Your task to perform on an android device: set an alarm Image 0: 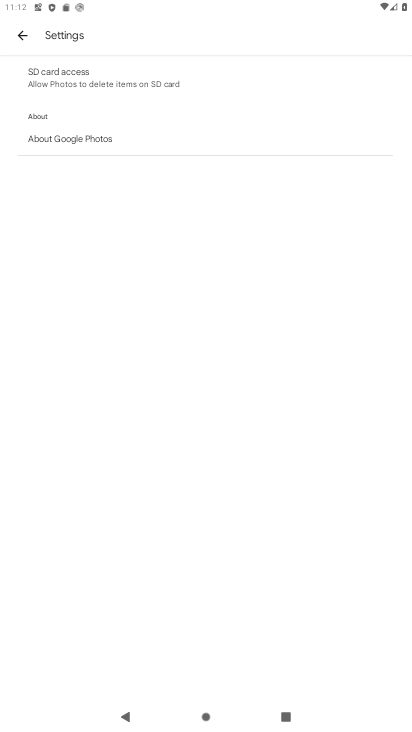
Step 0: press home button
Your task to perform on an android device: set an alarm Image 1: 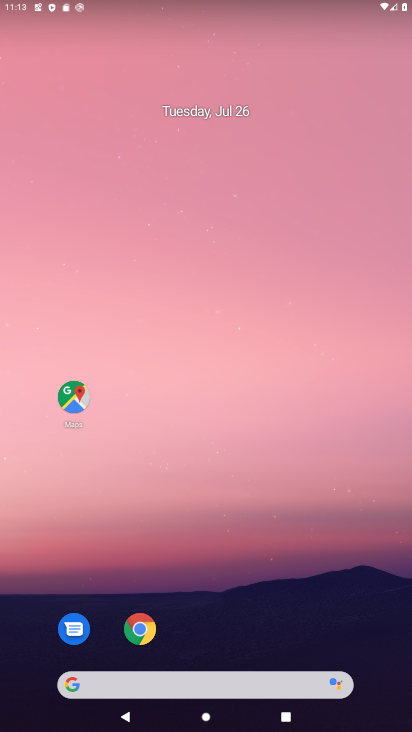
Step 1: drag from (301, 629) to (298, 6)
Your task to perform on an android device: set an alarm Image 2: 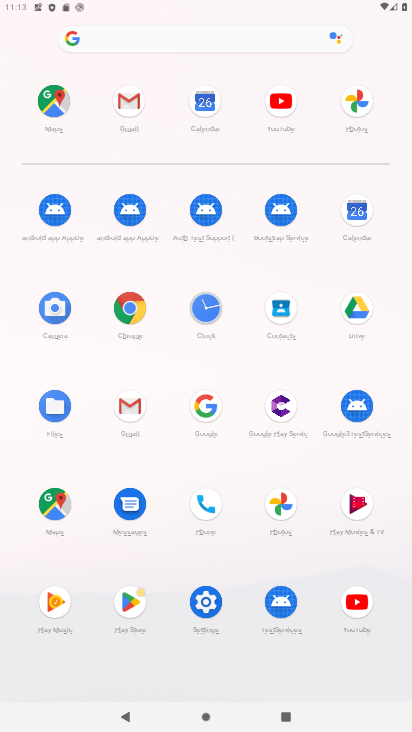
Step 2: click (194, 314)
Your task to perform on an android device: set an alarm Image 3: 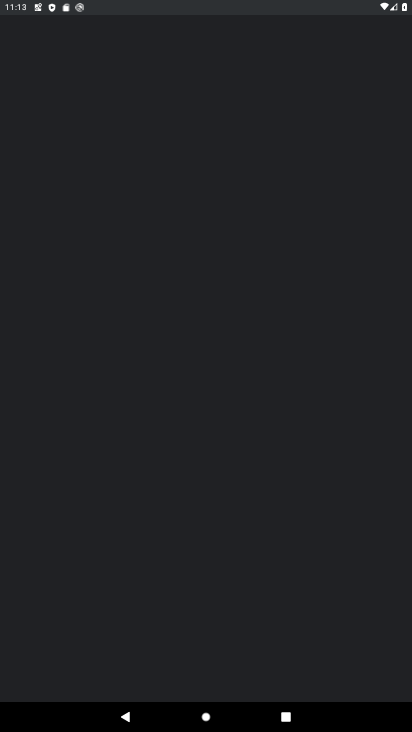
Step 3: task complete